Your task to perform on an android device: turn off smart reply in the gmail app Image 0: 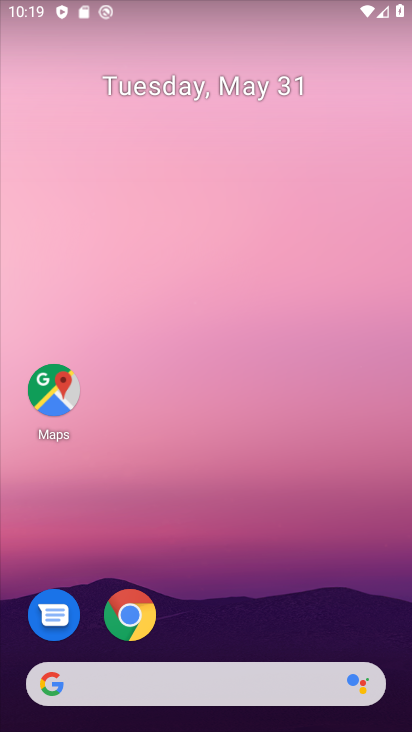
Step 0: drag from (214, 588) to (292, 130)
Your task to perform on an android device: turn off smart reply in the gmail app Image 1: 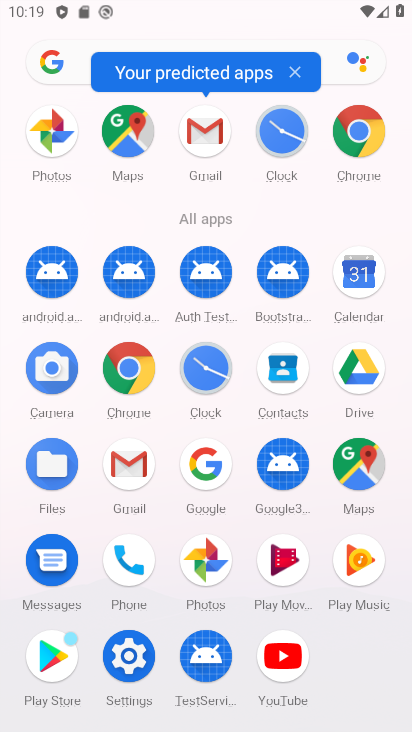
Step 1: drag from (203, 652) to (278, 290)
Your task to perform on an android device: turn off smart reply in the gmail app Image 2: 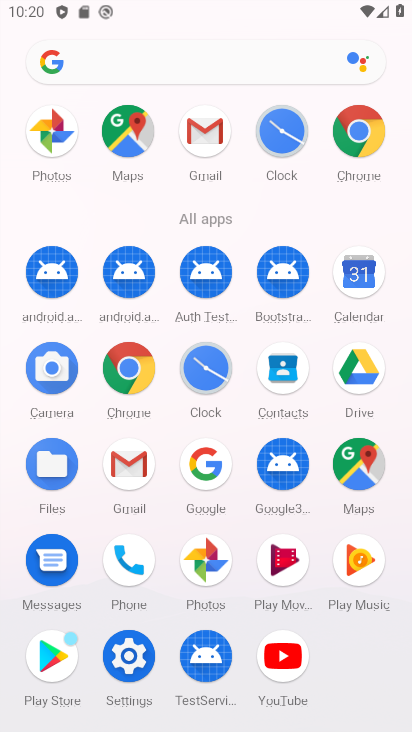
Step 2: click (134, 468)
Your task to perform on an android device: turn off smart reply in the gmail app Image 3: 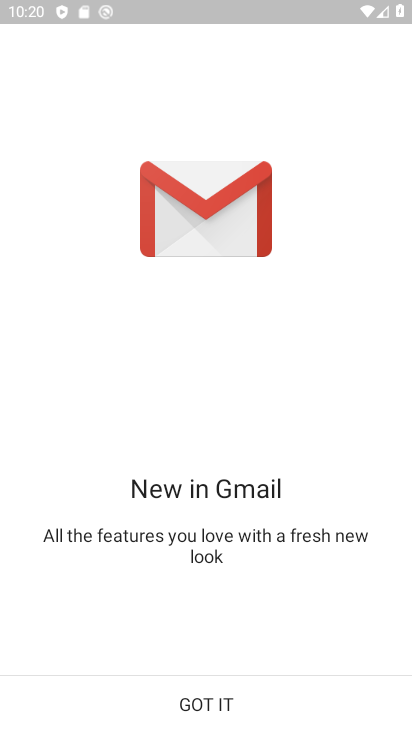
Step 3: click (275, 712)
Your task to perform on an android device: turn off smart reply in the gmail app Image 4: 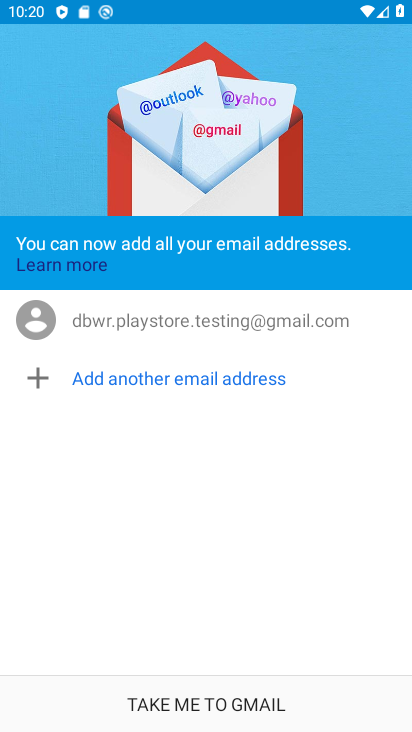
Step 4: click (281, 713)
Your task to perform on an android device: turn off smart reply in the gmail app Image 5: 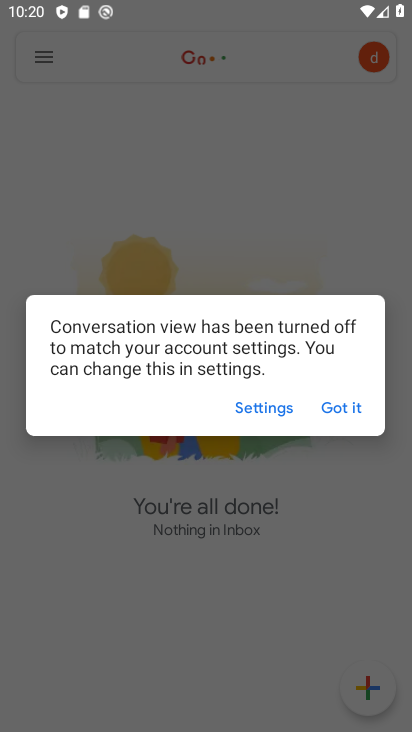
Step 5: click (370, 405)
Your task to perform on an android device: turn off smart reply in the gmail app Image 6: 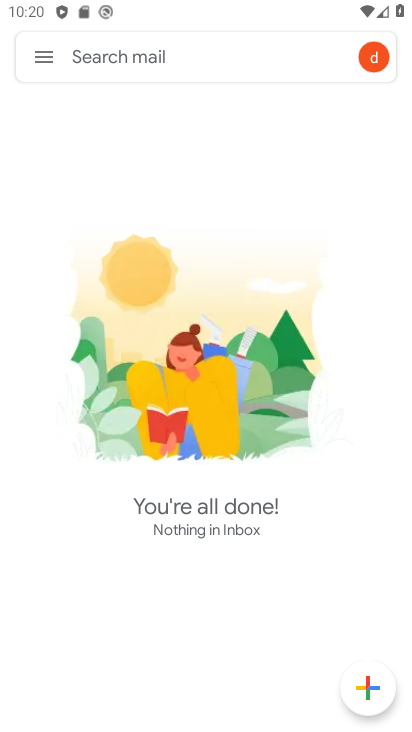
Step 6: click (46, 50)
Your task to perform on an android device: turn off smart reply in the gmail app Image 7: 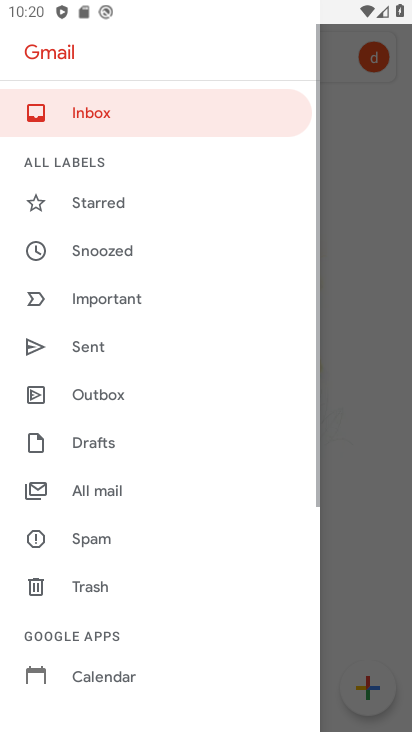
Step 7: drag from (95, 671) to (162, 212)
Your task to perform on an android device: turn off smart reply in the gmail app Image 8: 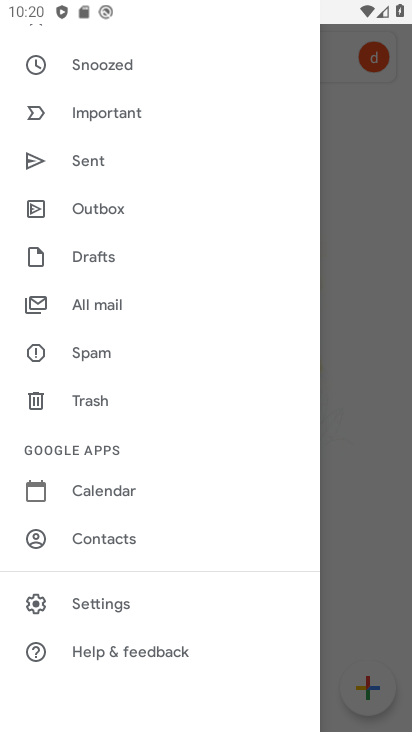
Step 8: click (152, 598)
Your task to perform on an android device: turn off smart reply in the gmail app Image 9: 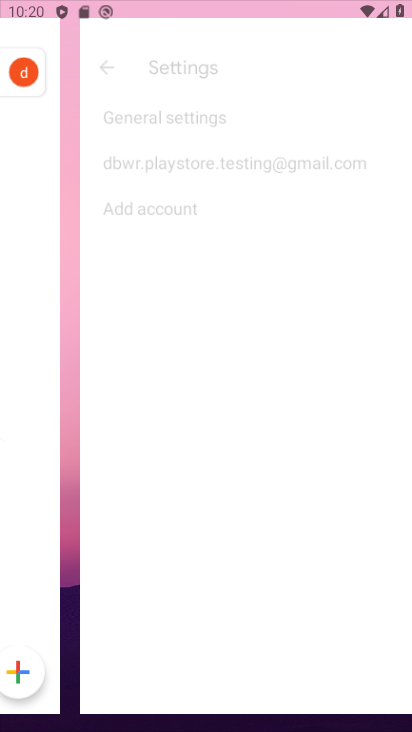
Step 9: drag from (170, 633) to (226, 303)
Your task to perform on an android device: turn off smart reply in the gmail app Image 10: 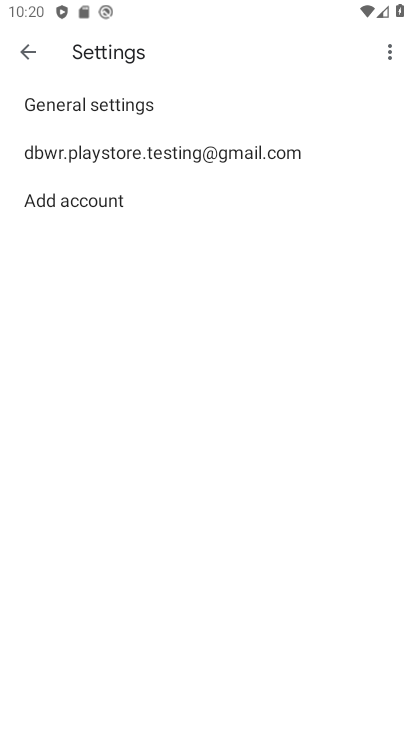
Step 10: click (264, 171)
Your task to perform on an android device: turn off smart reply in the gmail app Image 11: 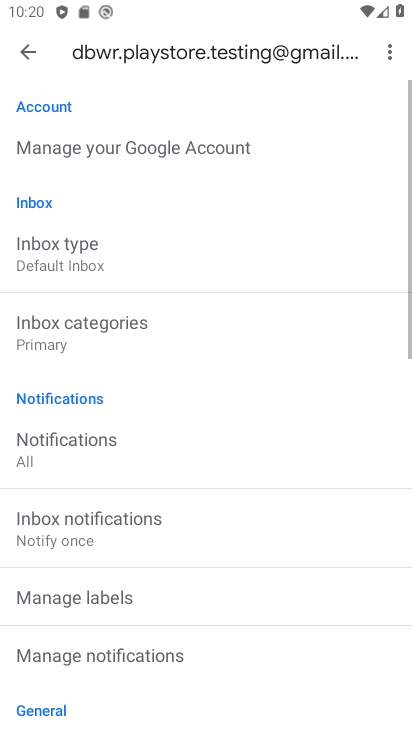
Step 11: drag from (189, 686) to (247, 107)
Your task to perform on an android device: turn off smart reply in the gmail app Image 12: 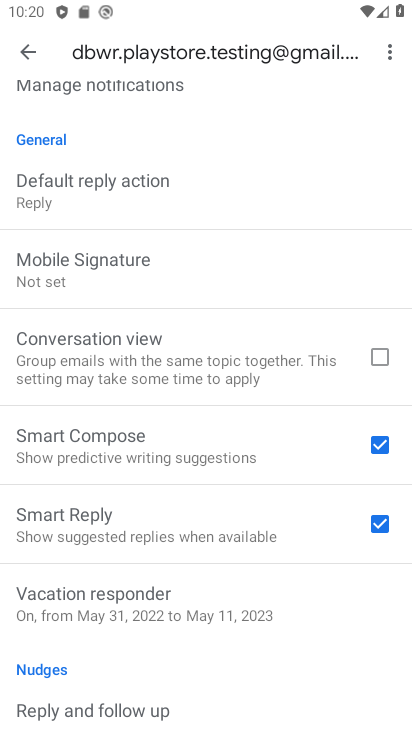
Step 12: click (377, 524)
Your task to perform on an android device: turn off smart reply in the gmail app Image 13: 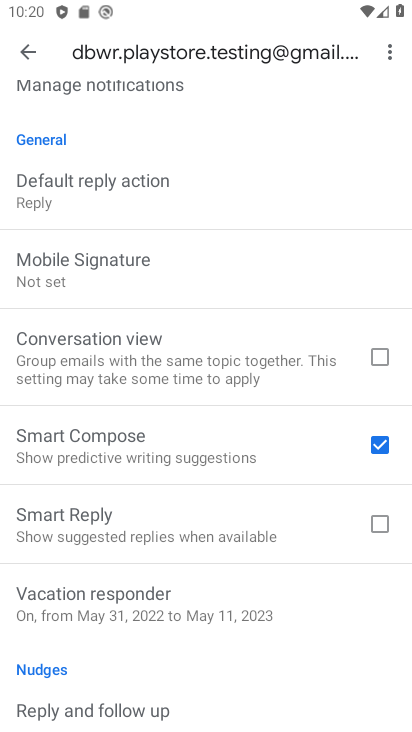
Step 13: task complete